Your task to perform on an android device: Open Google Maps and go to "Timeline" Image 0: 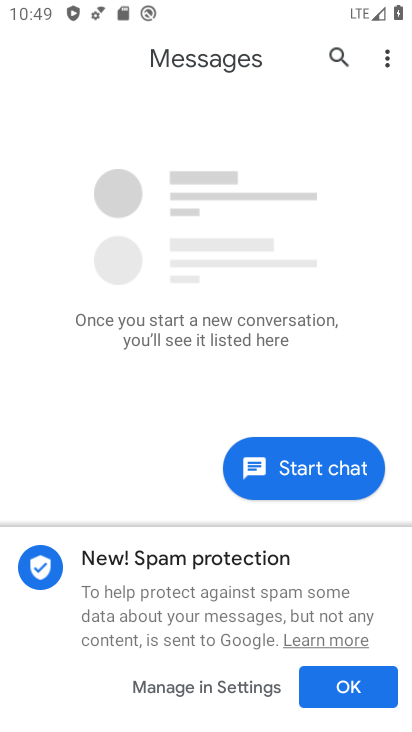
Step 0: press home button
Your task to perform on an android device: Open Google Maps and go to "Timeline" Image 1: 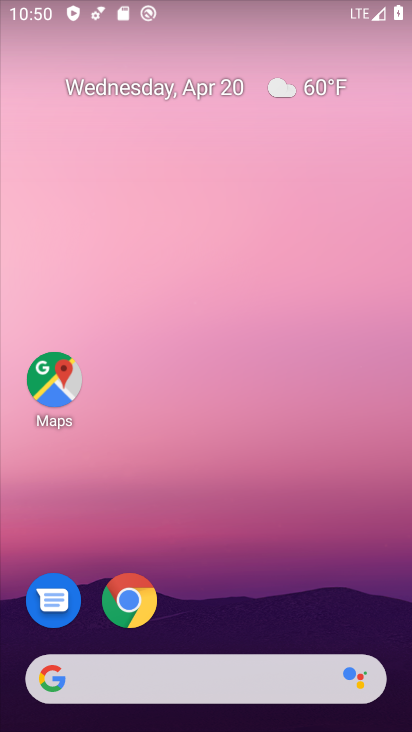
Step 1: click (55, 387)
Your task to perform on an android device: Open Google Maps and go to "Timeline" Image 2: 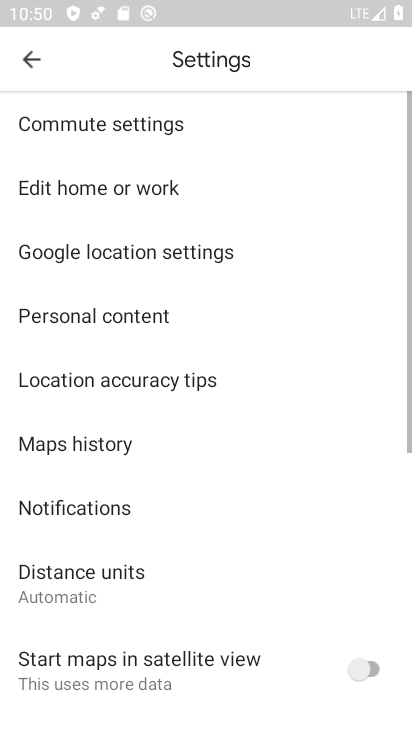
Step 2: click (32, 69)
Your task to perform on an android device: Open Google Maps and go to "Timeline" Image 3: 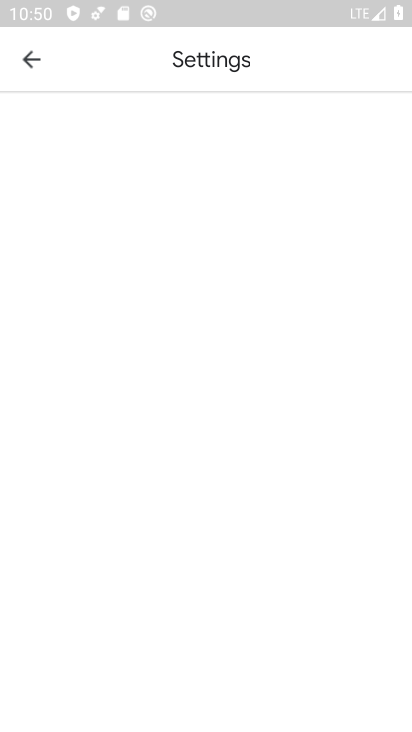
Step 3: click (29, 67)
Your task to perform on an android device: Open Google Maps and go to "Timeline" Image 4: 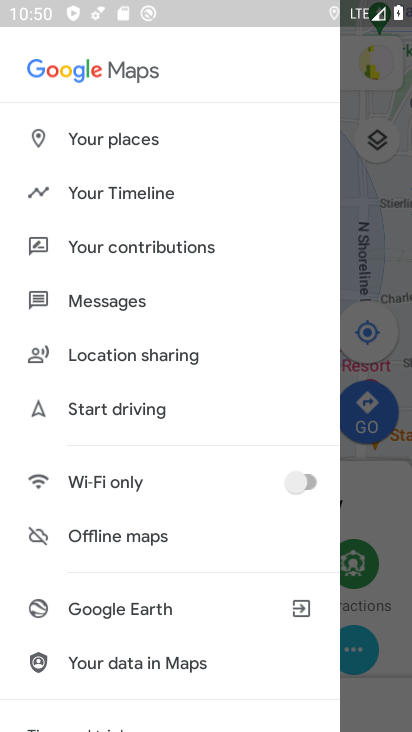
Step 4: click (170, 194)
Your task to perform on an android device: Open Google Maps and go to "Timeline" Image 5: 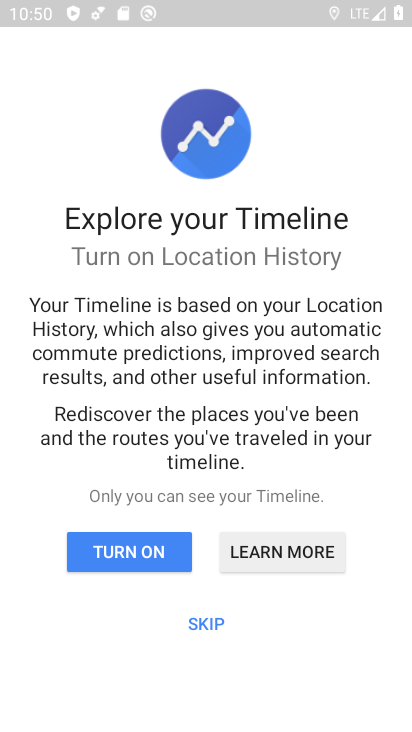
Step 5: click (147, 547)
Your task to perform on an android device: Open Google Maps and go to "Timeline" Image 6: 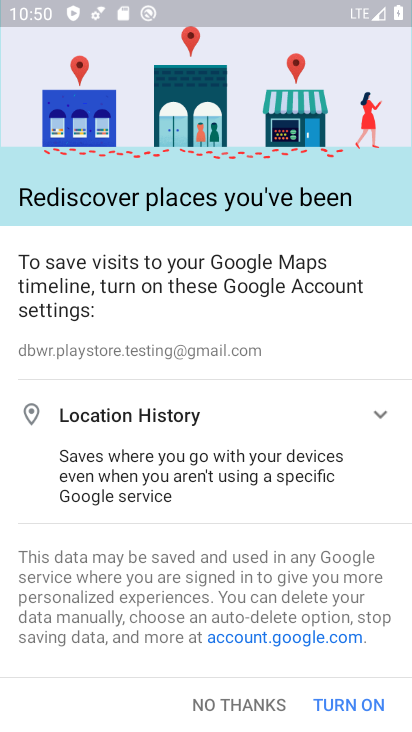
Step 6: click (222, 698)
Your task to perform on an android device: Open Google Maps and go to "Timeline" Image 7: 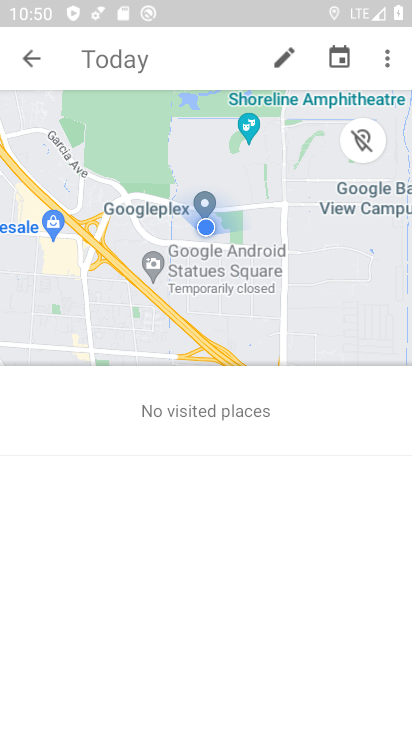
Step 7: task complete